Your task to perform on an android device: turn off airplane mode Image 0: 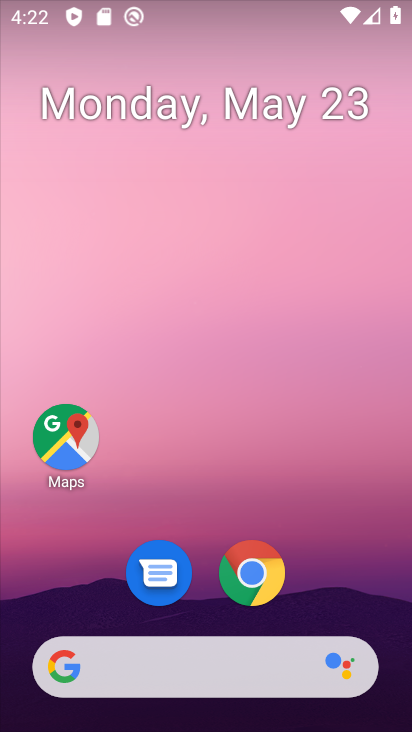
Step 0: drag from (237, 722) to (227, 85)
Your task to perform on an android device: turn off airplane mode Image 1: 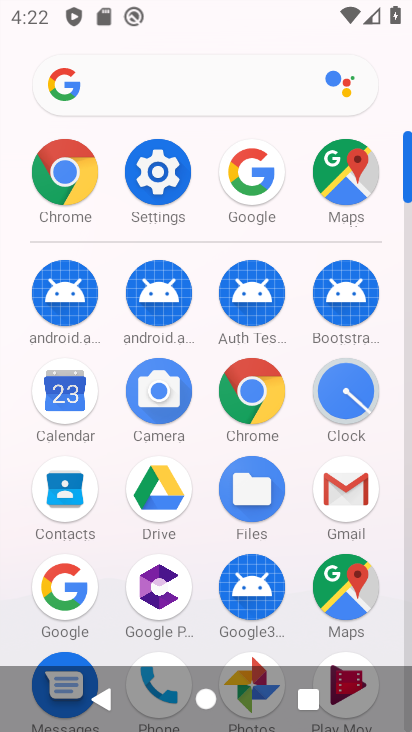
Step 1: click (147, 159)
Your task to perform on an android device: turn off airplane mode Image 2: 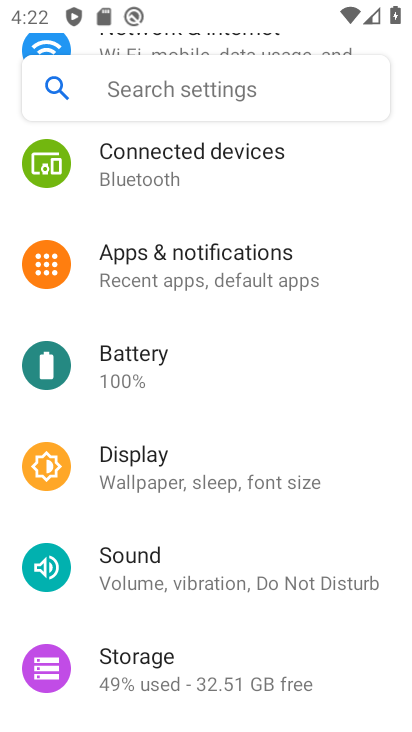
Step 2: drag from (179, 170) to (196, 630)
Your task to perform on an android device: turn off airplane mode Image 3: 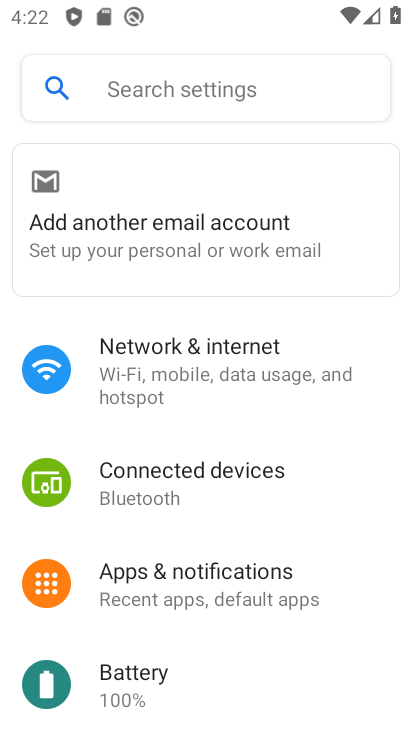
Step 3: click (186, 377)
Your task to perform on an android device: turn off airplane mode Image 4: 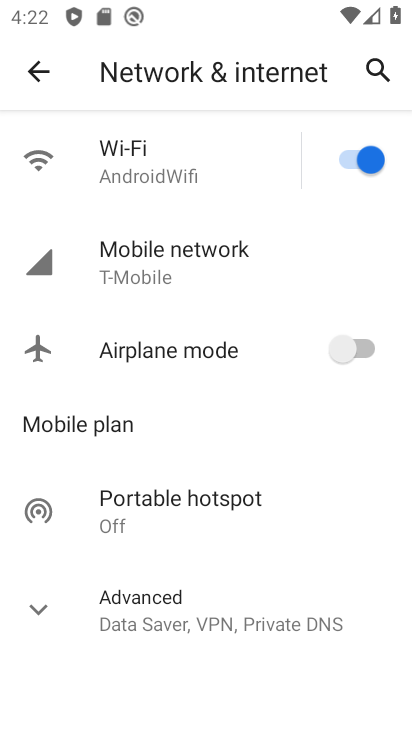
Step 4: task complete